Your task to perform on an android device: Open settings on Google Maps Image 0: 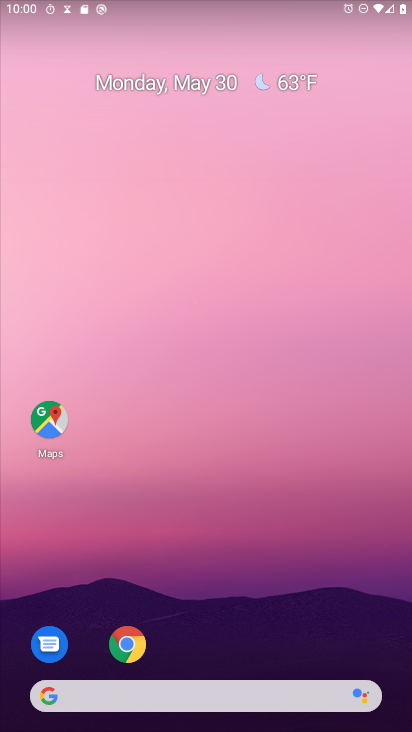
Step 0: drag from (211, 640) to (193, 29)
Your task to perform on an android device: Open settings on Google Maps Image 1: 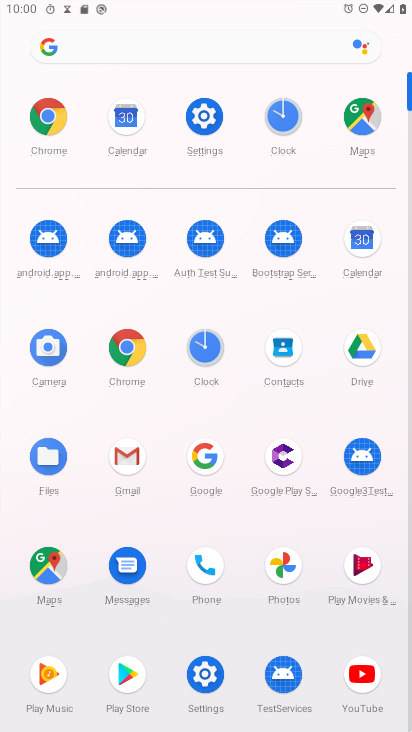
Step 1: click (44, 570)
Your task to perform on an android device: Open settings on Google Maps Image 2: 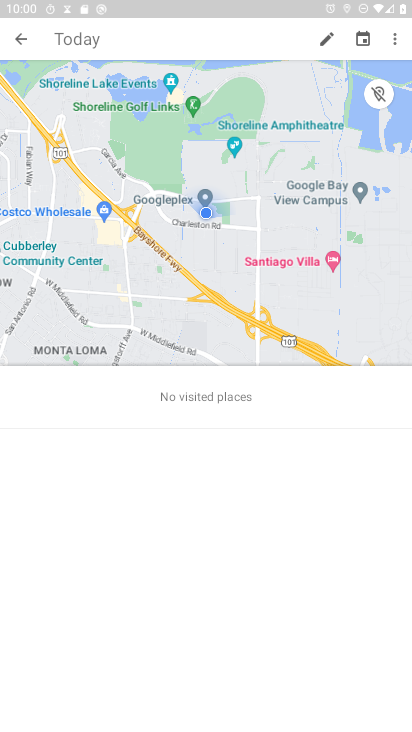
Step 2: press back button
Your task to perform on an android device: Open settings on Google Maps Image 3: 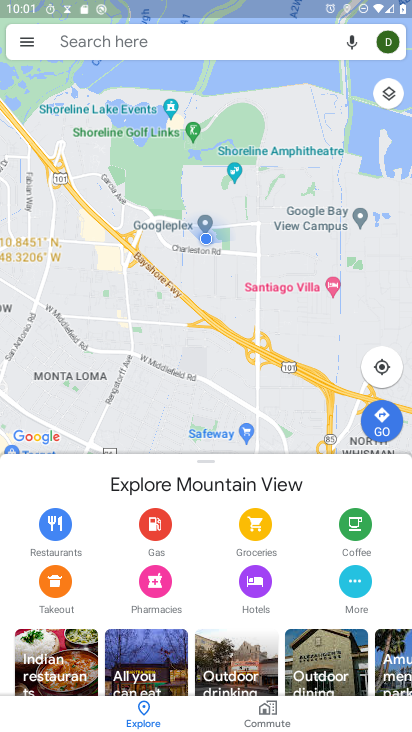
Step 3: click (28, 41)
Your task to perform on an android device: Open settings on Google Maps Image 4: 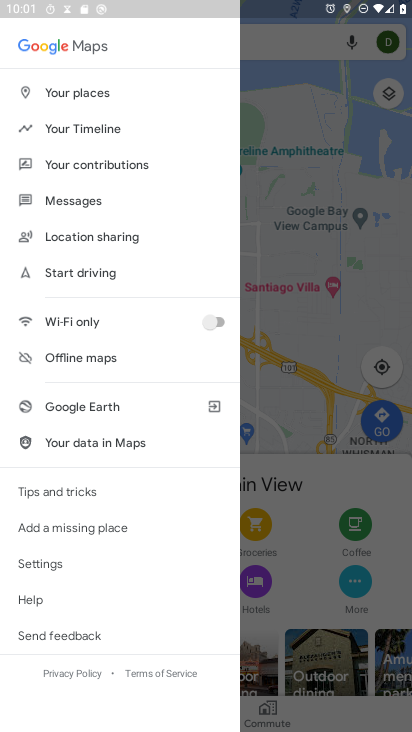
Step 4: click (81, 562)
Your task to perform on an android device: Open settings on Google Maps Image 5: 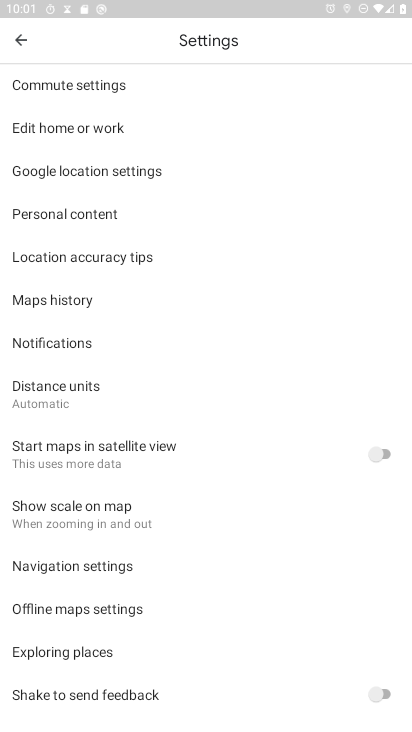
Step 5: task complete